Your task to perform on an android device: What's the weather? Image 0: 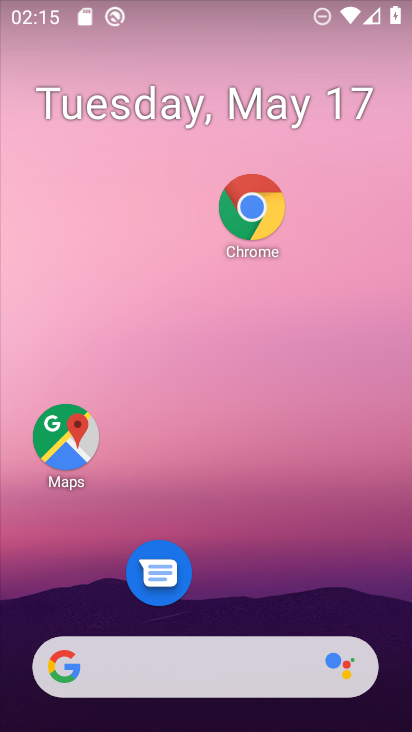
Step 0: drag from (93, 339) to (383, 358)
Your task to perform on an android device: What's the weather? Image 1: 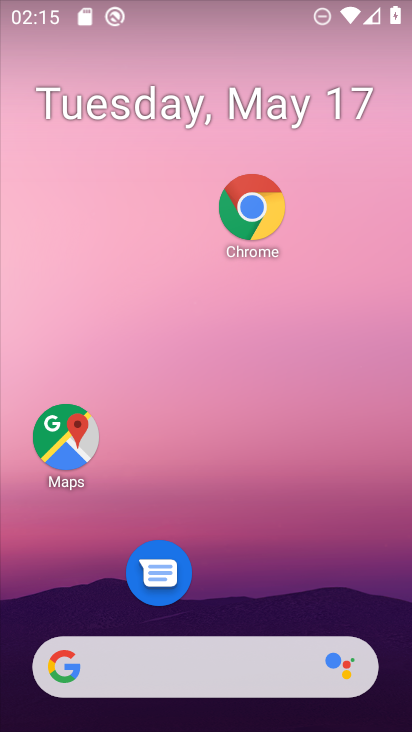
Step 1: click (323, 468)
Your task to perform on an android device: What's the weather? Image 2: 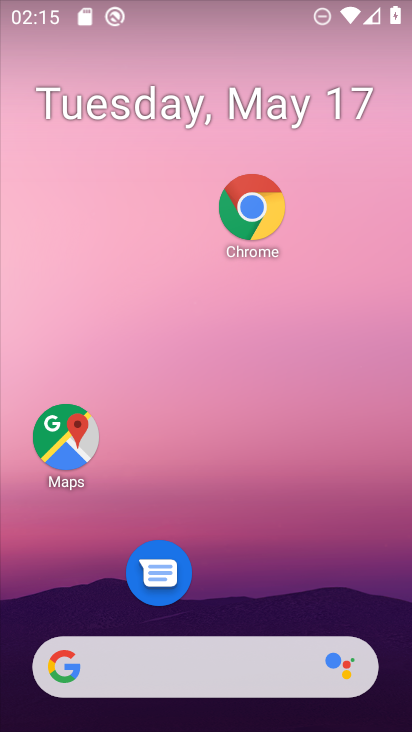
Step 2: drag from (6, 298) to (403, 317)
Your task to perform on an android device: What's the weather? Image 3: 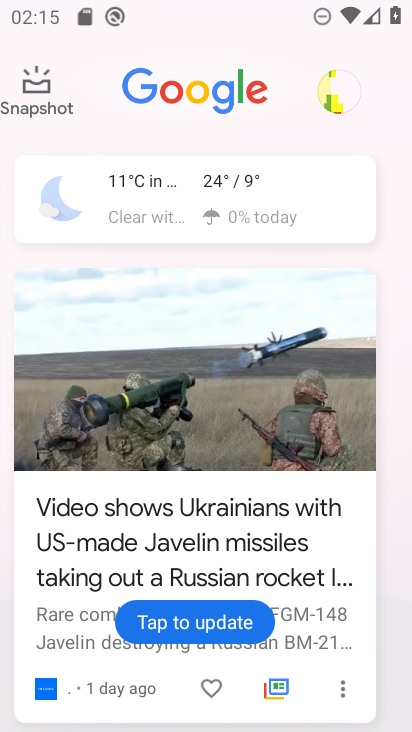
Step 3: click (157, 179)
Your task to perform on an android device: What's the weather? Image 4: 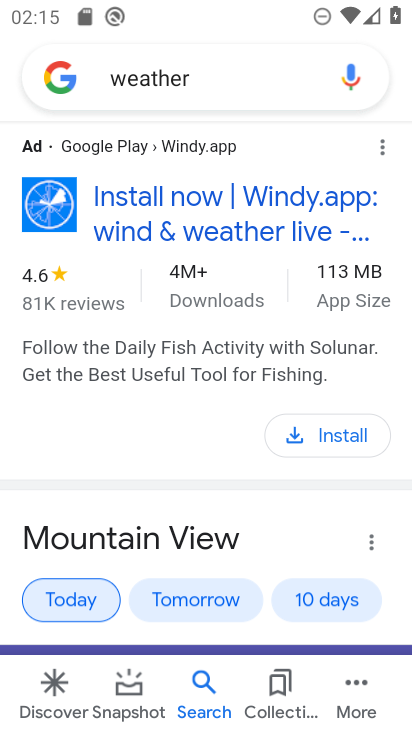
Step 4: task complete